Your task to perform on an android device: turn off picture-in-picture Image 0: 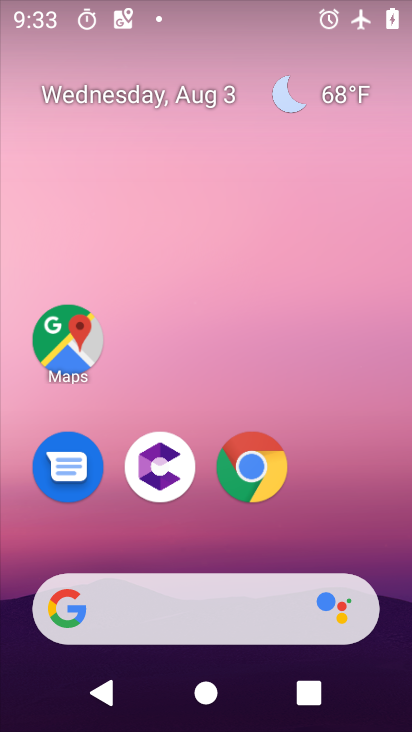
Step 0: click (249, 474)
Your task to perform on an android device: turn off picture-in-picture Image 1: 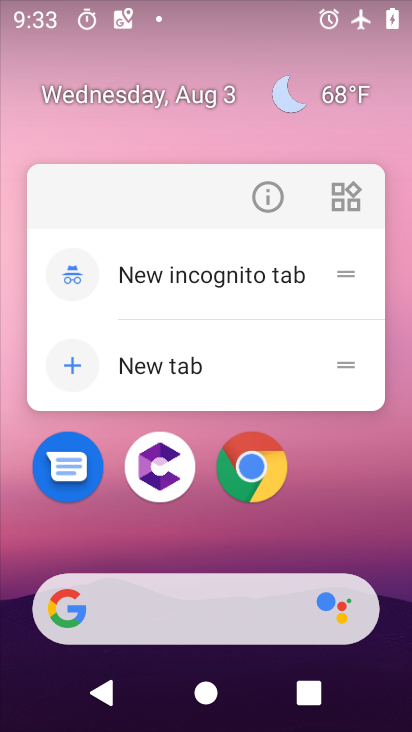
Step 1: click (277, 190)
Your task to perform on an android device: turn off picture-in-picture Image 2: 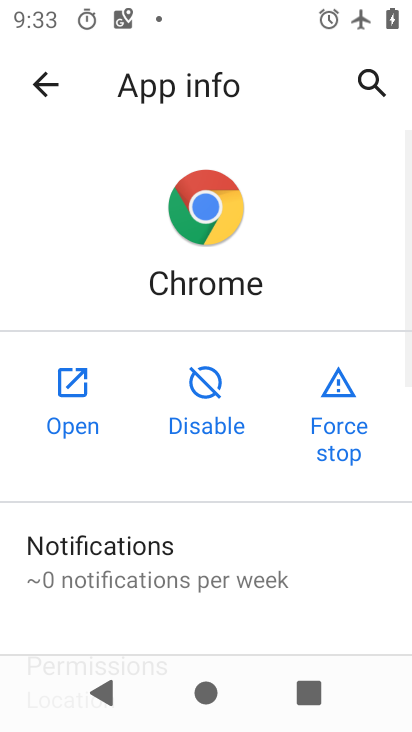
Step 2: drag from (277, 535) to (301, 104)
Your task to perform on an android device: turn off picture-in-picture Image 3: 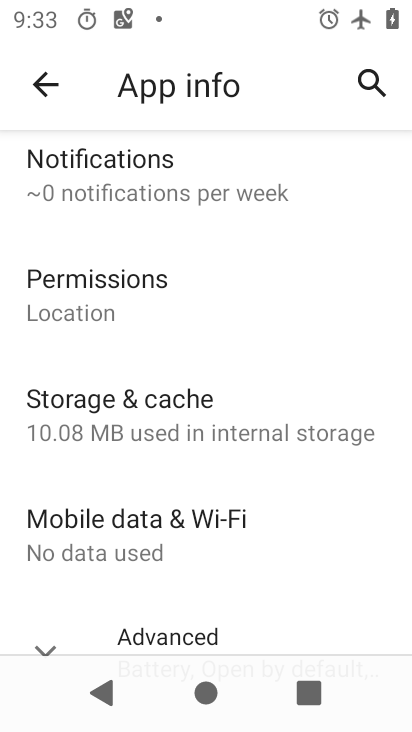
Step 3: drag from (316, 507) to (324, 164)
Your task to perform on an android device: turn off picture-in-picture Image 4: 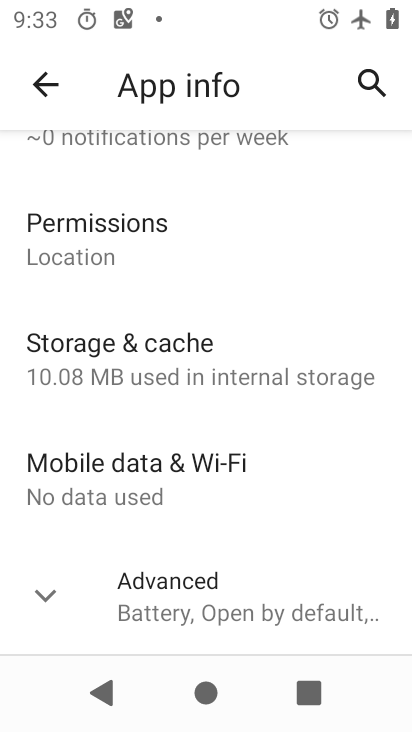
Step 4: click (162, 577)
Your task to perform on an android device: turn off picture-in-picture Image 5: 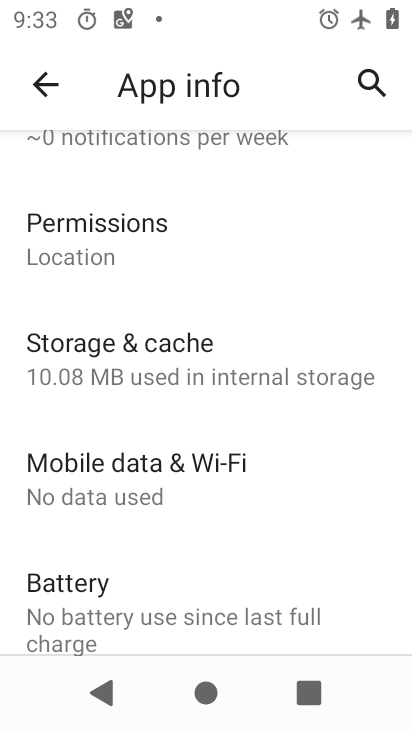
Step 5: drag from (274, 559) to (301, 262)
Your task to perform on an android device: turn off picture-in-picture Image 6: 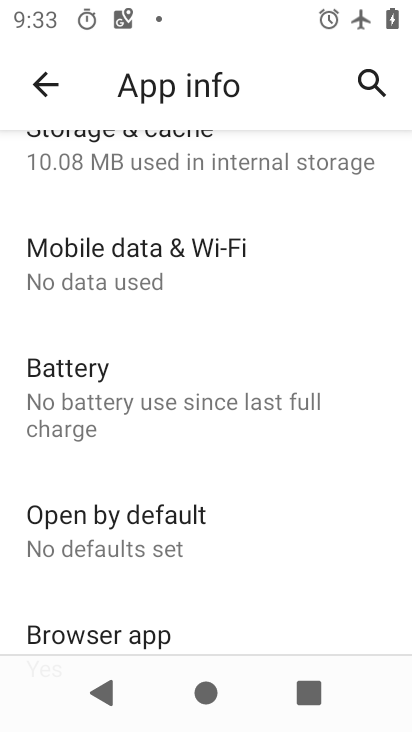
Step 6: drag from (216, 616) to (274, 268)
Your task to perform on an android device: turn off picture-in-picture Image 7: 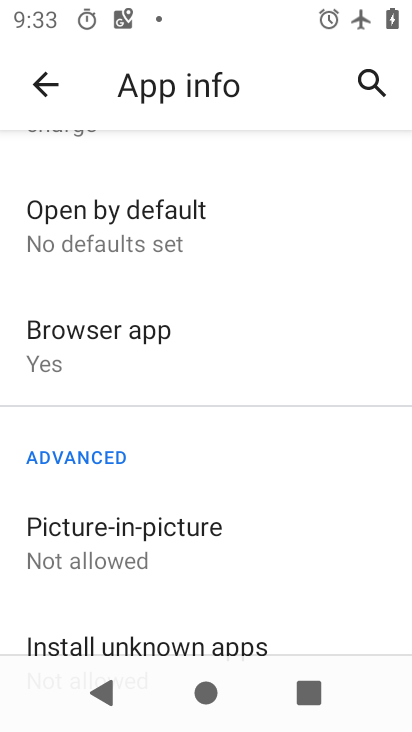
Step 7: click (147, 536)
Your task to perform on an android device: turn off picture-in-picture Image 8: 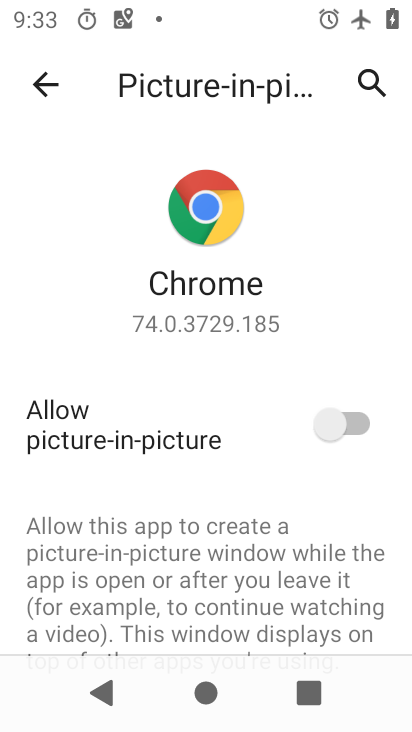
Step 8: task complete